Your task to perform on an android device: allow notifications from all sites in the chrome app Image 0: 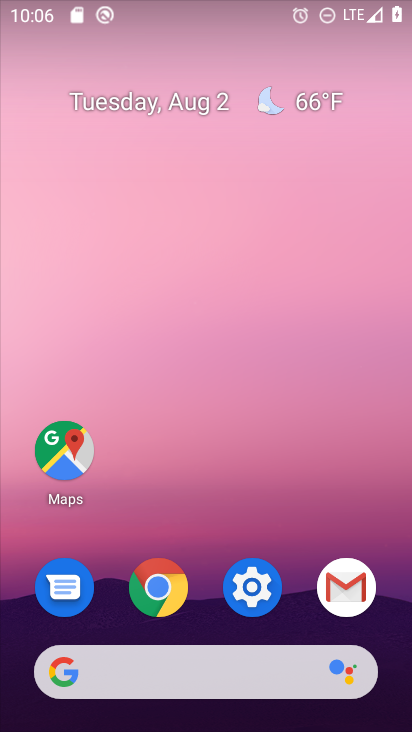
Step 0: click (151, 585)
Your task to perform on an android device: allow notifications from all sites in the chrome app Image 1: 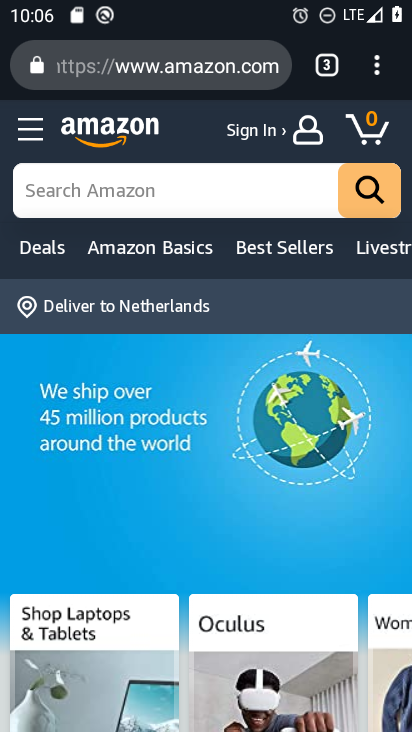
Step 1: click (374, 78)
Your task to perform on an android device: allow notifications from all sites in the chrome app Image 2: 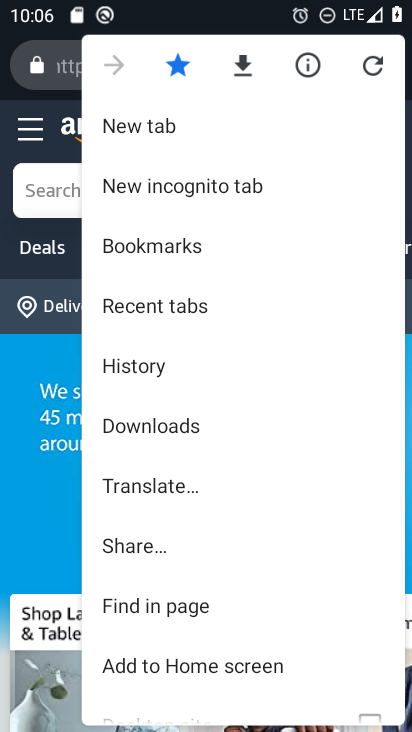
Step 2: drag from (180, 608) to (239, 394)
Your task to perform on an android device: allow notifications from all sites in the chrome app Image 3: 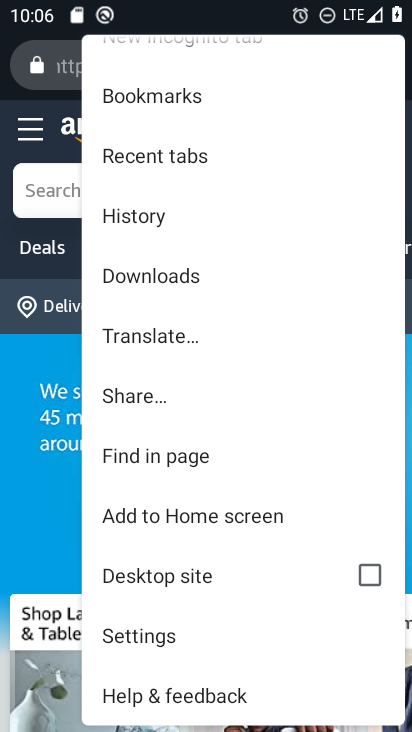
Step 3: click (194, 631)
Your task to perform on an android device: allow notifications from all sites in the chrome app Image 4: 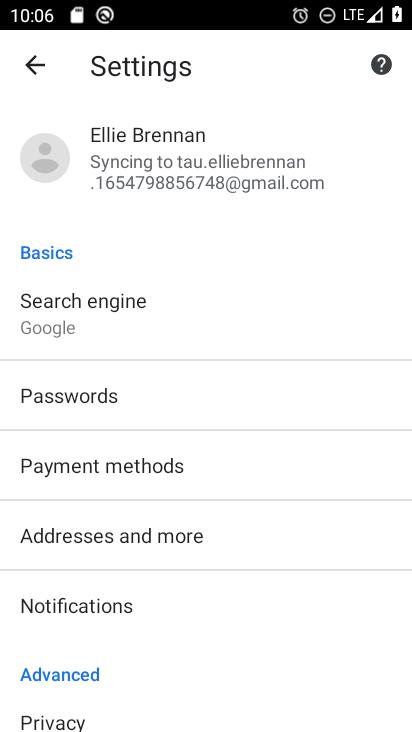
Step 4: drag from (200, 681) to (221, 486)
Your task to perform on an android device: allow notifications from all sites in the chrome app Image 5: 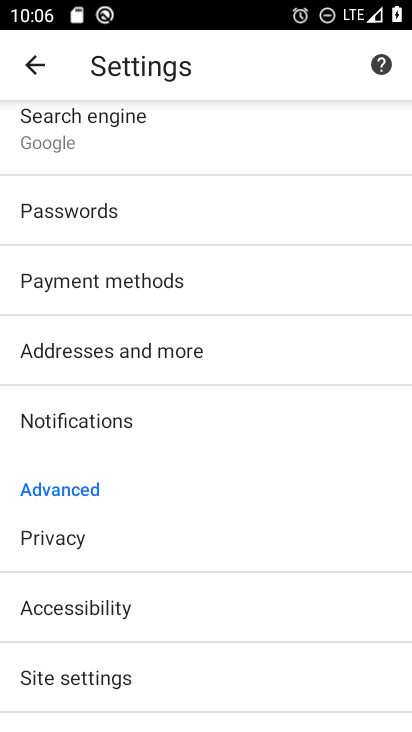
Step 5: click (128, 680)
Your task to perform on an android device: allow notifications from all sites in the chrome app Image 6: 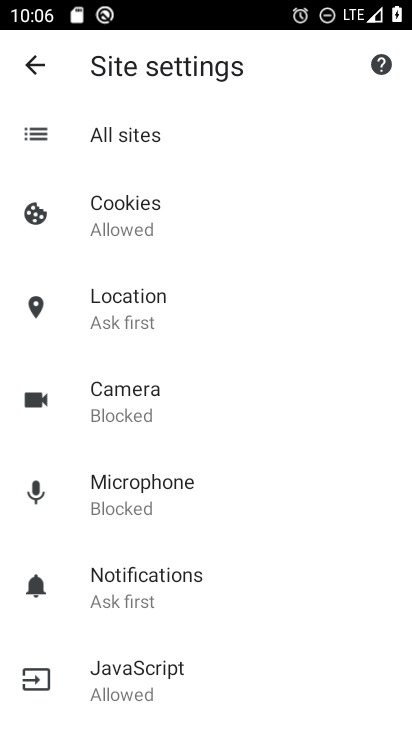
Step 6: click (144, 591)
Your task to perform on an android device: allow notifications from all sites in the chrome app Image 7: 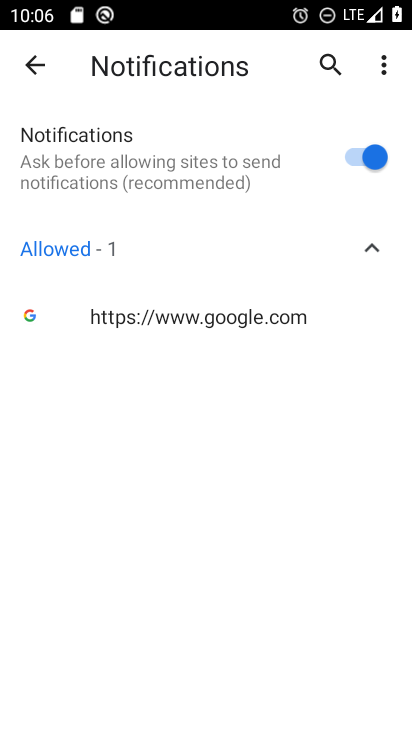
Step 7: click (358, 162)
Your task to perform on an android device: allow notifications from all sites in the chrome app Image 8: 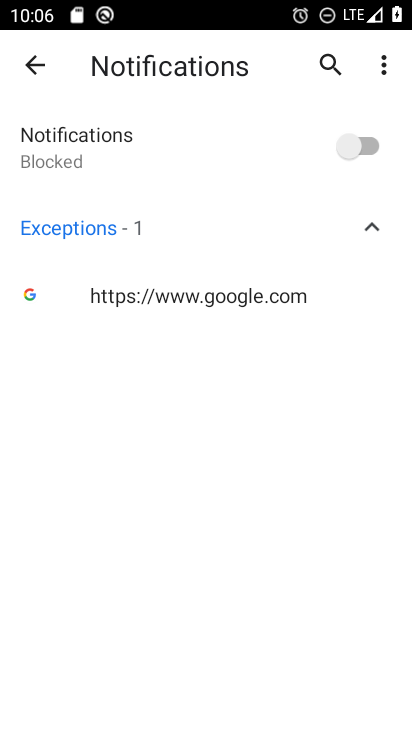
Step 8: click (358, 162)
Your task to perform on an android device: allow notifications from all sites in the chrome app Image 9: 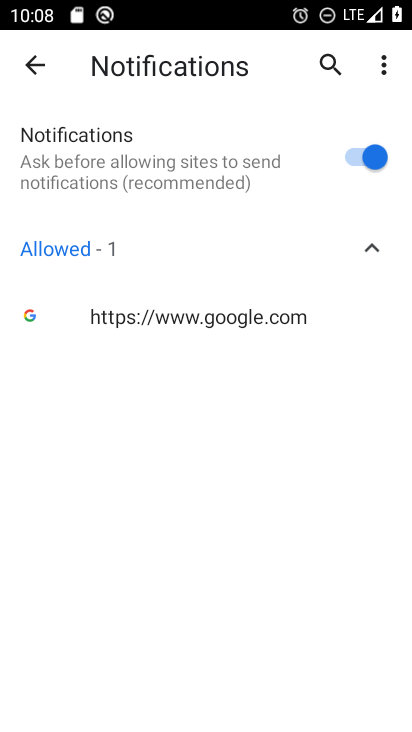
Step 9: task complete